Your task to perform on an android device: turn notification dots off Image 0: 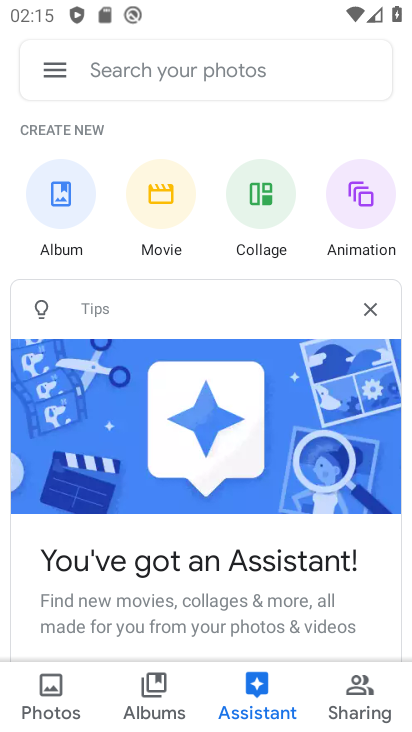
Step 0: press home button
Your task to perform on an android device: turn notification dots off Image 1: 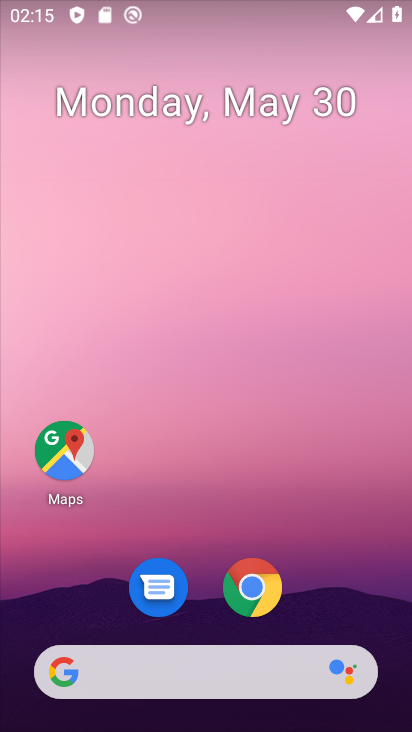
Step 1: drag from (115, 729) to (177, 101)
Your task to perform on an android device: turn notification dots off Image 2: 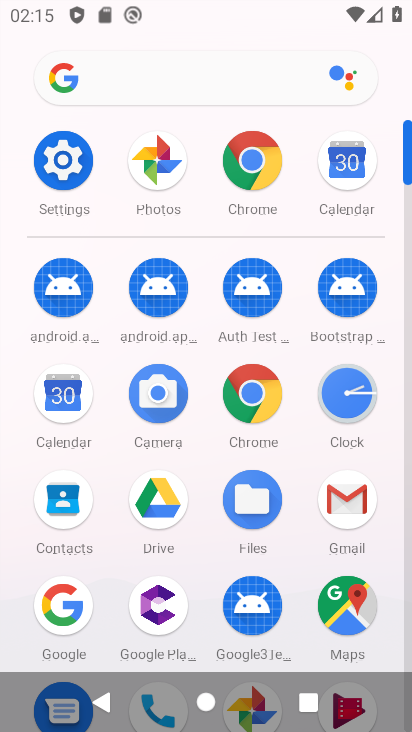
Step 2: click (60, 172)
Your task to perform on an android device: turn notification dots off Image 3: 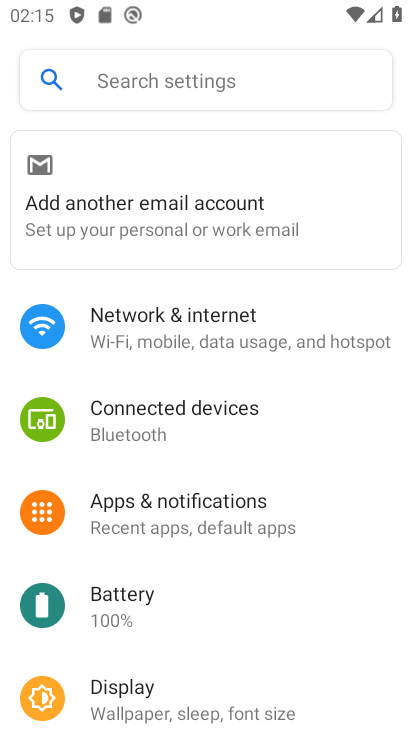
Step 3: click (246, 501)
Your task to perform on an android device: turn notification dots off Image 4: 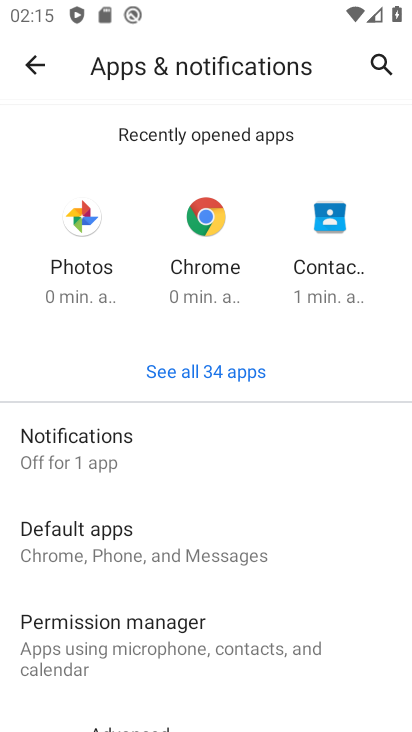
Step 4: click (132, 456)
Your task to perform on an android device: turn notification dots off Image 5: 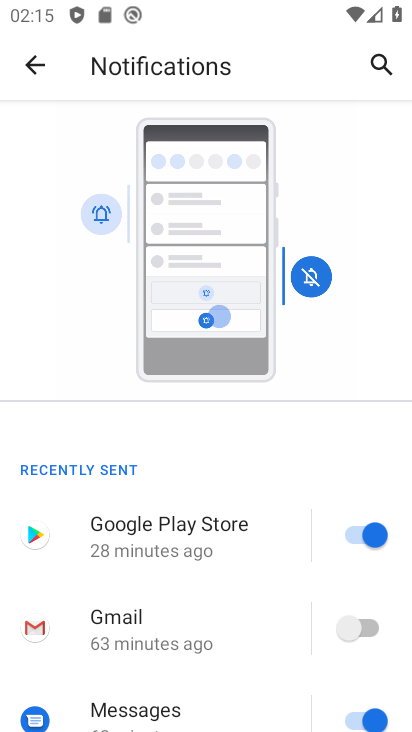
Step 5: drag from (254, 644) to (230, 276)
Your task to perform on an android device: turn notification dots off Image 6: 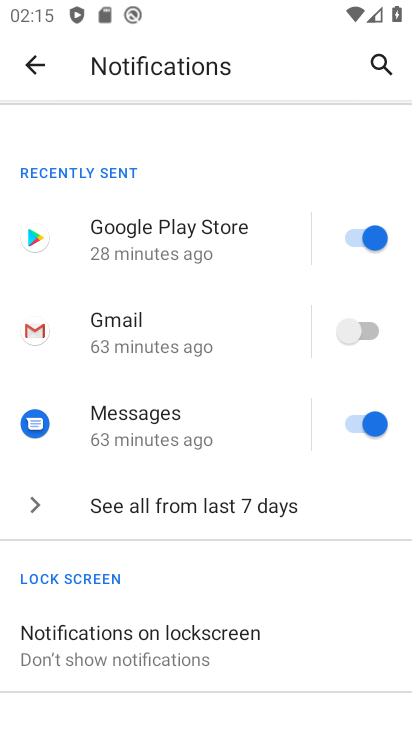
Step 6: drag from (266, 684) to (351, 231)
Your task to perform on an android device: turn notification dots off Image 7: 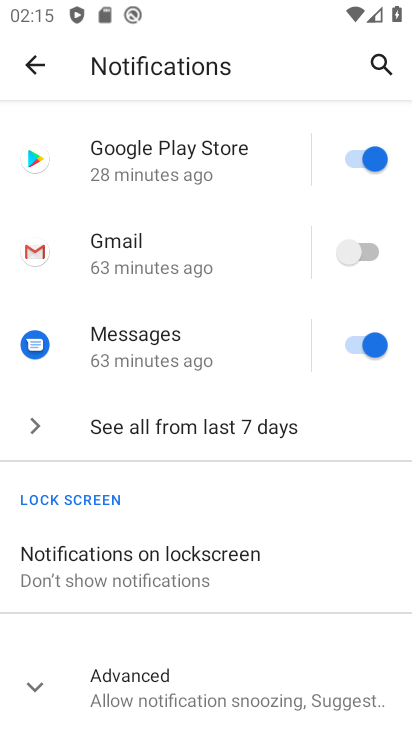
Step 7: click (204, 702)
Your task to perform on an android device: turn notification dots off Image 8: 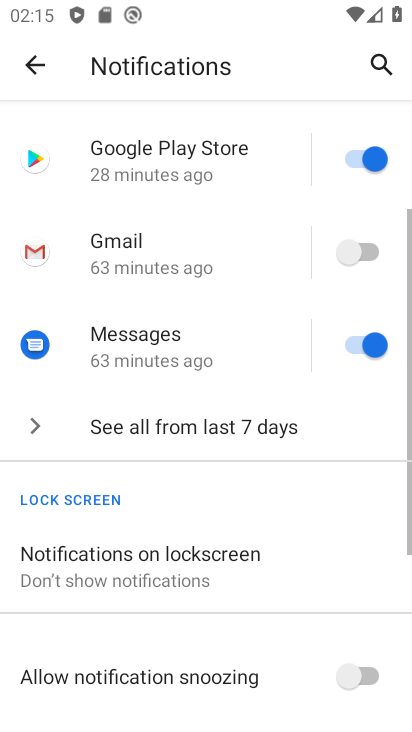
Step 8: drag from (199, 695) to (236, 190)
Your task to perform on an android device: turn notification dots off Image 9: 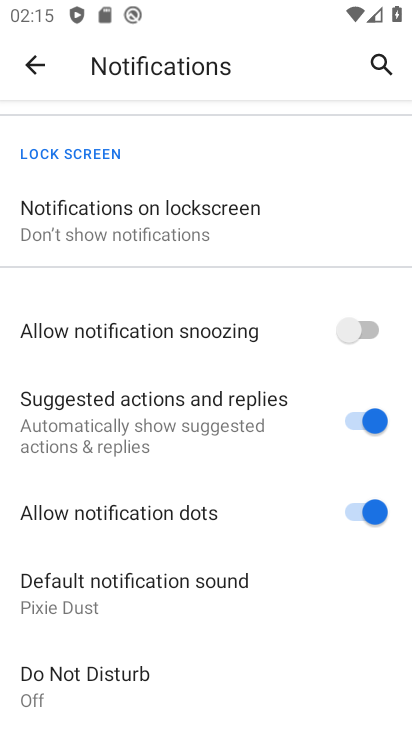
Step 9: click (377, 512)
Your task to perform on an android device: turn notification dots off Image 10: 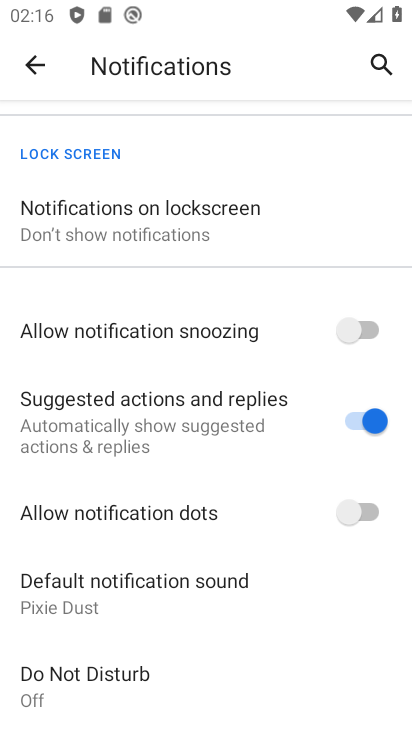
Step 10: task complete